Your task to perform on an android device: star an email in the gmail app Image 0: 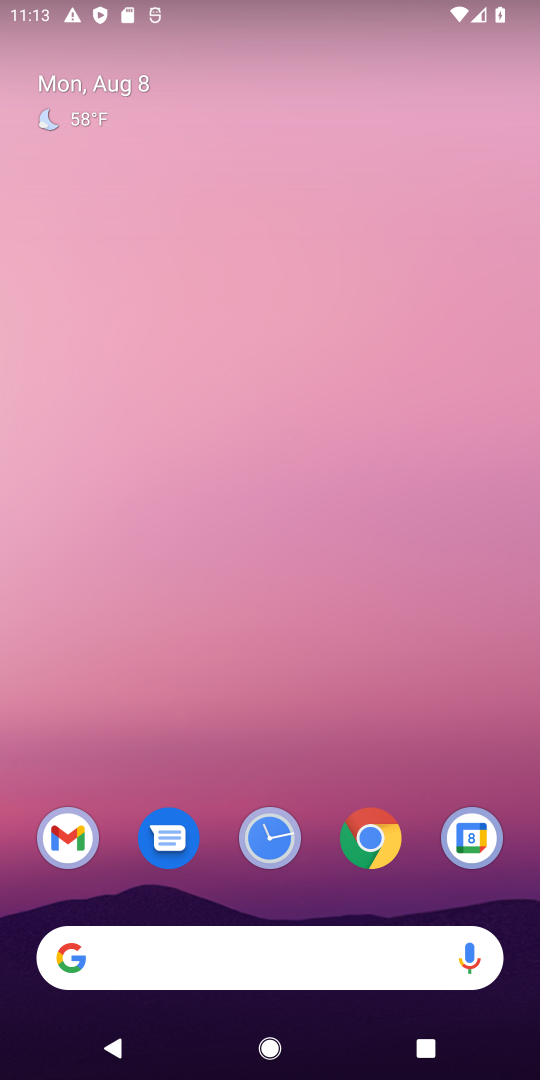
Step 0: press home button
Your task to perform on an android device: star an email in the gmail app Image 1: 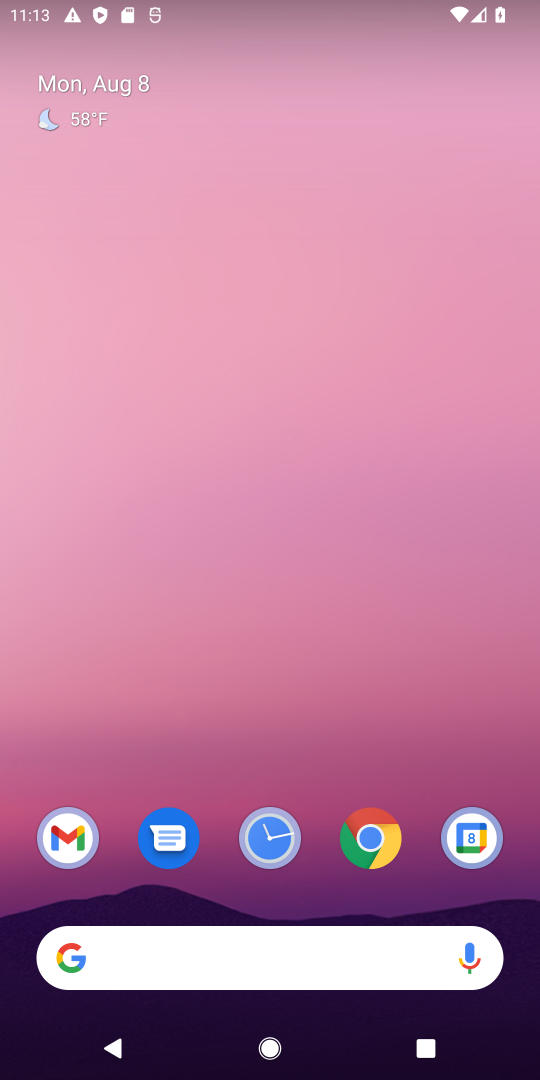
Step 1: drag from (341, 873) to (316, 176)
Your task to perform on an android device: star an email in the gmail app Image 2: 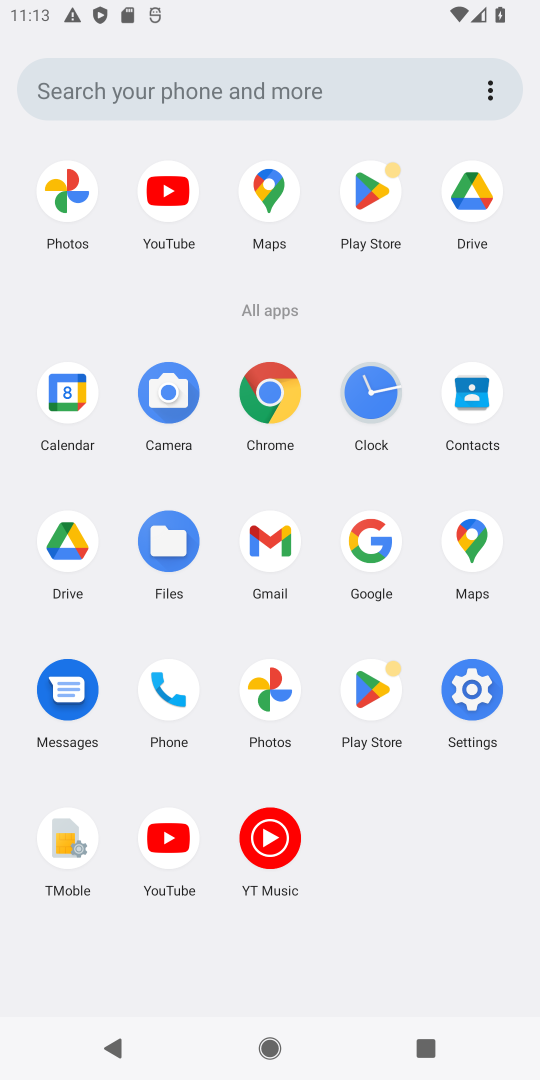
Step 2: click (268, 538)
Your task to perform on an android device: star an email in the gmail app Image 3: 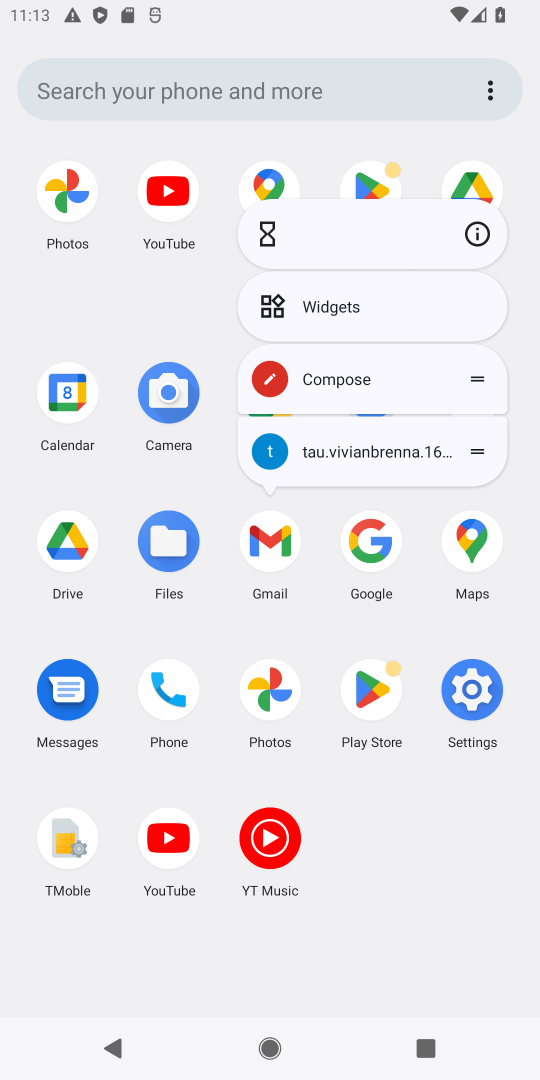
Step 3: click (271, 542)
Your task to perform on an android device: star an email in the gmail app Image 4: 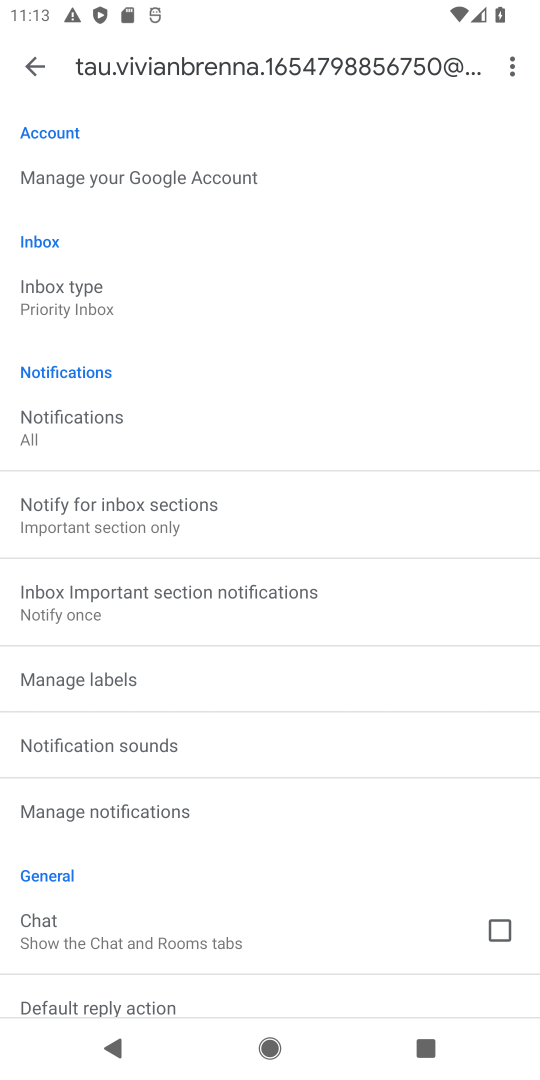
Step 4: click (33, 60)
Your task to perform on an android device: star an email in the gmail app Image 5: 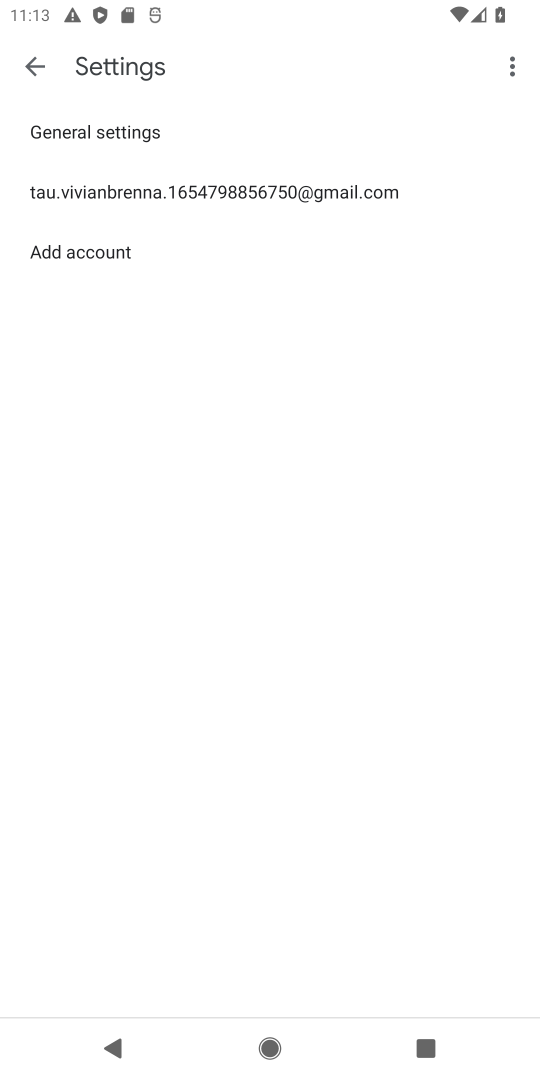
Step 5: click (29, 69)
Your task to perform on an android device: star an email in the gmail app Image 6: 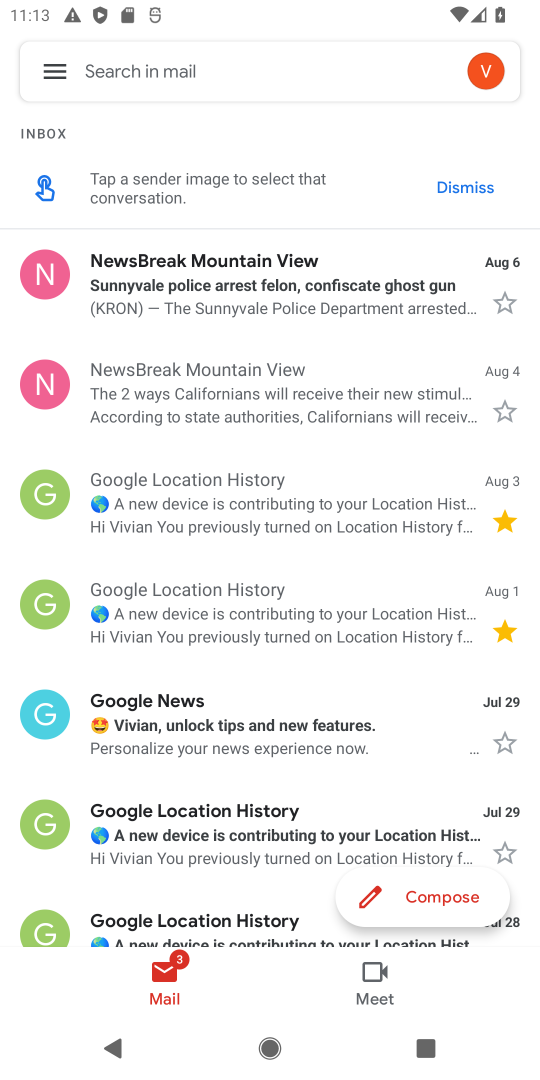
Step 6: click (275, 391)
Your task to perform on an android device: star an email in the gmail app Image 7: 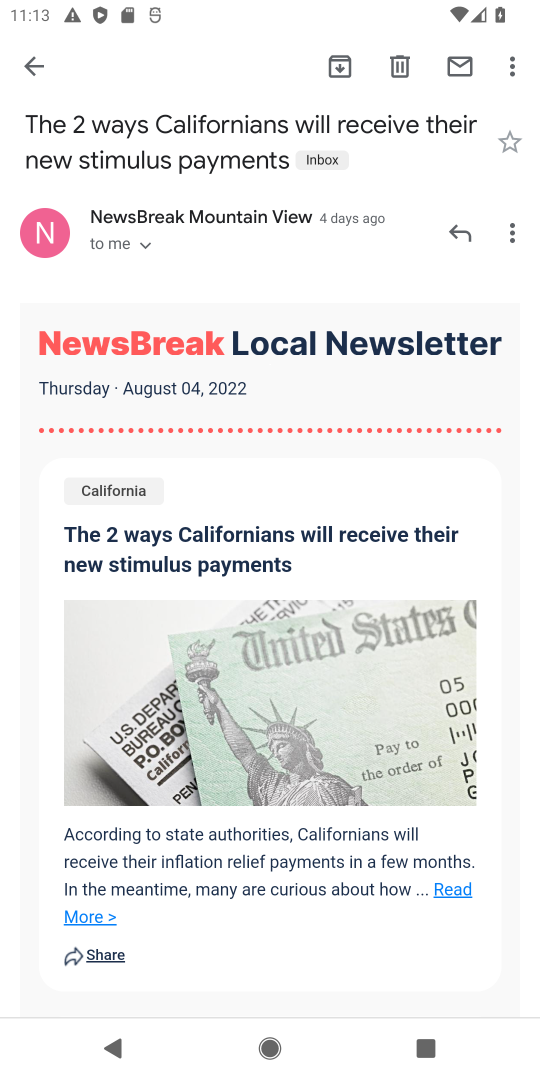
Step 7: click (509, 154)
Your task to perform on an android device: star an email in the gmail app Image 8: 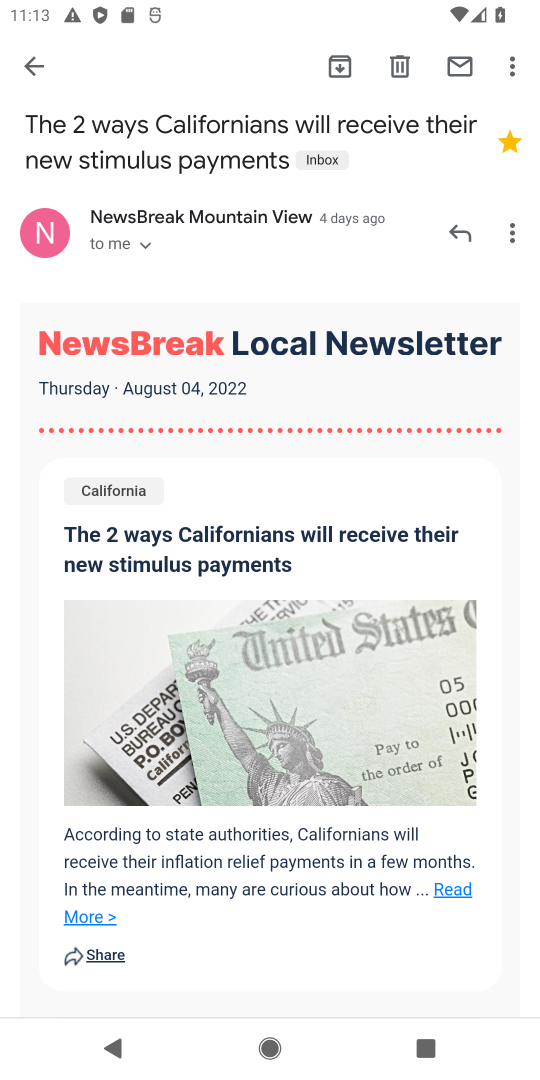
Step 8: task complete